Your task to perform on an android device: turn off priority inbox in the gmail app Image 0: 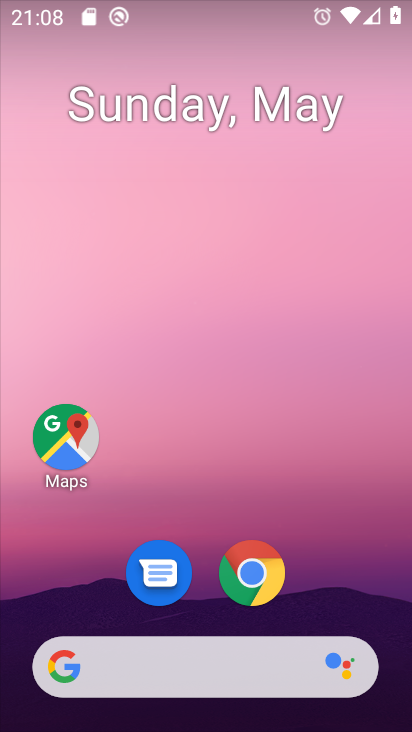
Step 0: drag from (210, 498) to (229, 0)
Your task to perform on an android device: turn off priority inbox in the gmail app Image 1: 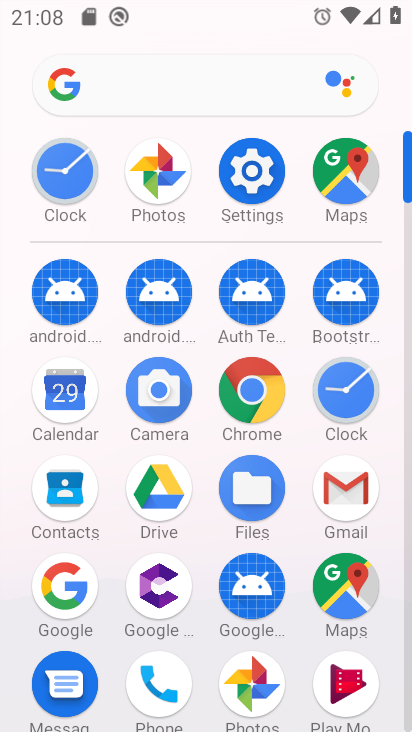
Step 1: click (344, 489)
Your task to perform on an android device: turn off priority inbox in the gmail app Image 2: 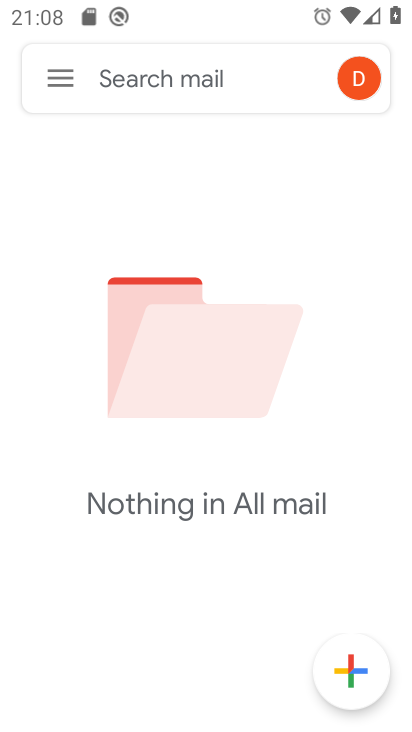
Step 2: click (58, 80)
Your task to perform on an android device: turn off priority inbox in the gmail app Image 3: 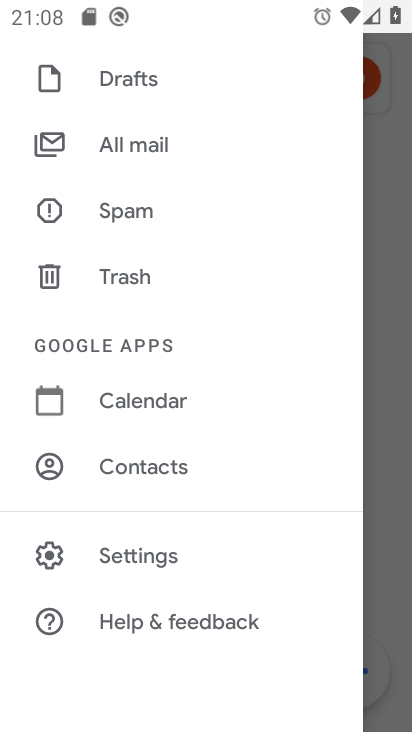
Step 3: drag from (188, 251) to (243, 193)
Your task to perform on an android device: turn off priority inbox in the gmail app Image 4: 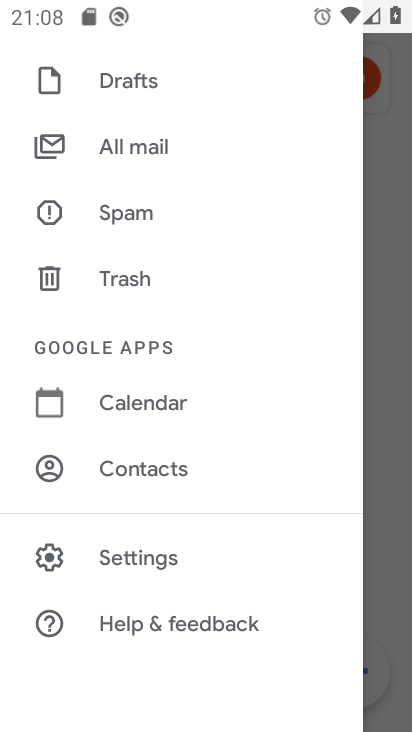
Step 4: click (155, 549)
Your task to perform on an android device: turn off priority inbox in the gmail app Image 5: 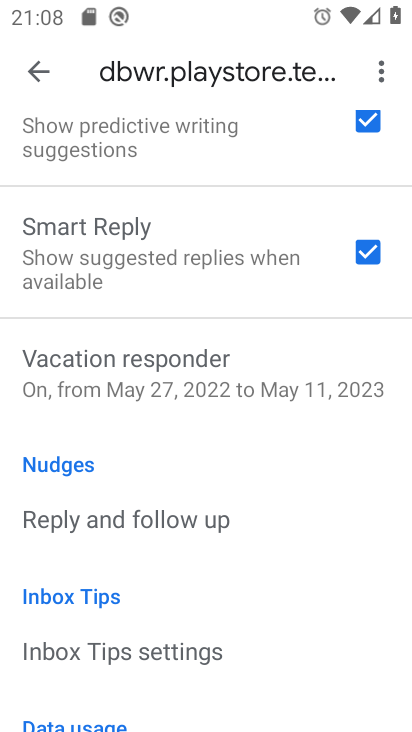
Step 5: click (257, 456)
Your task to perform on an android device: turn off priority inbox in the gmail app Image 6: 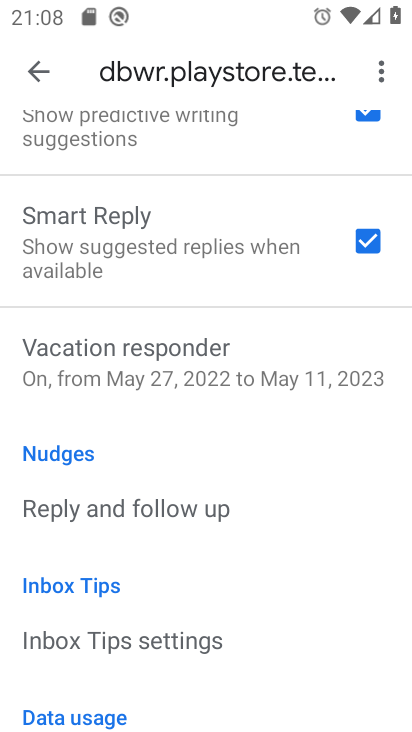
Step 6: task complete